Your task to perform on an android device: change keyboard looks Image 0: 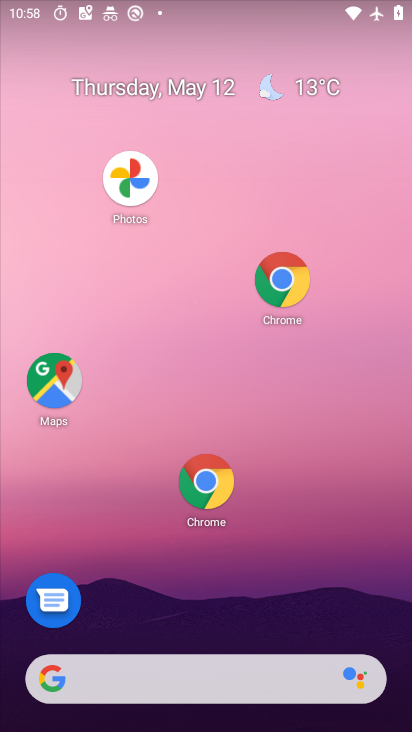
Step 0: drag from (273, 618) to (80, 44)
Your task to perform on an android device: change keyboard looks Image 1: 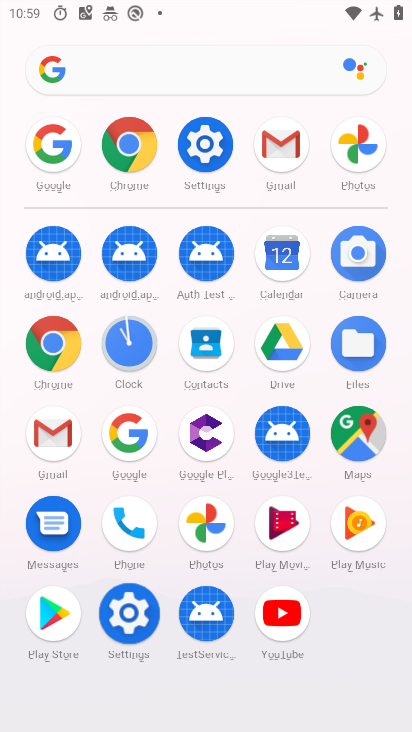
Step 1: click (149, 610)
Your task to perform on an android device: change keyboard looks Image 2: 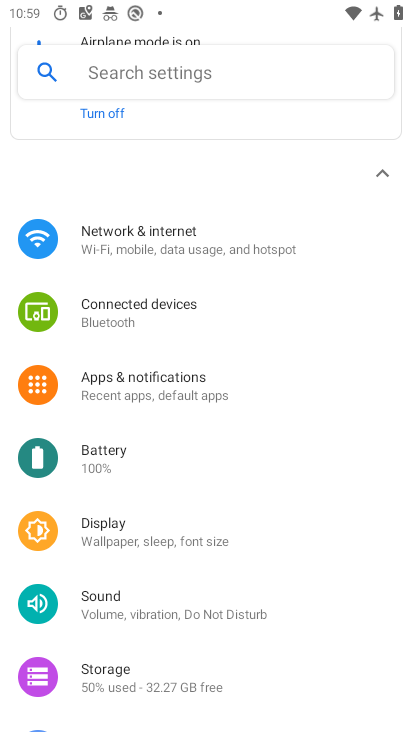
Step 2: drag from (119, 618) to (82, 259)
Your task to perform on an android device: change keyboard looks Image 3: 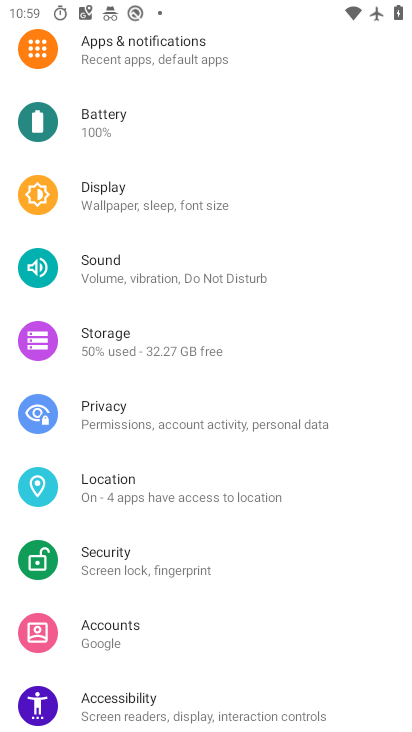
Step 3: drag from (107, 430) to (58, 189)
Your task to perform on an android device: change keyboard looks Image 4: 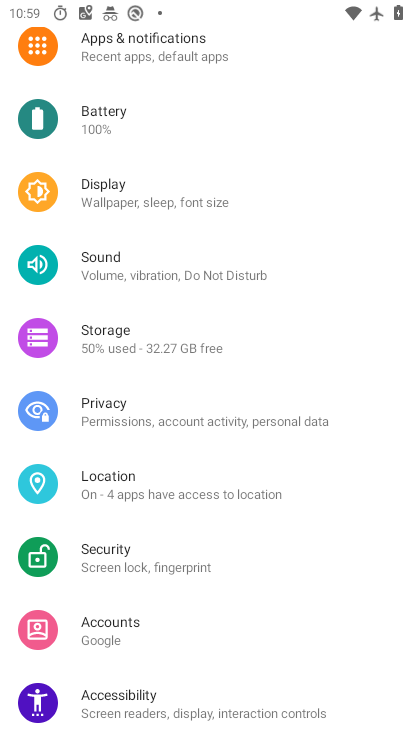
Step 4: drag from (167, 599) to (167, 271)
Your task to perform on an android device: change keyboard looks Image 5: 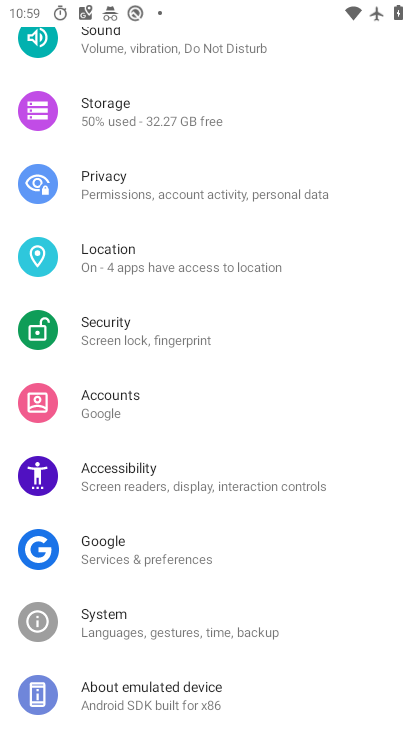
Step 5: click (125, 627)
Your task to perform on an android device: change keyboard looks Image 6: 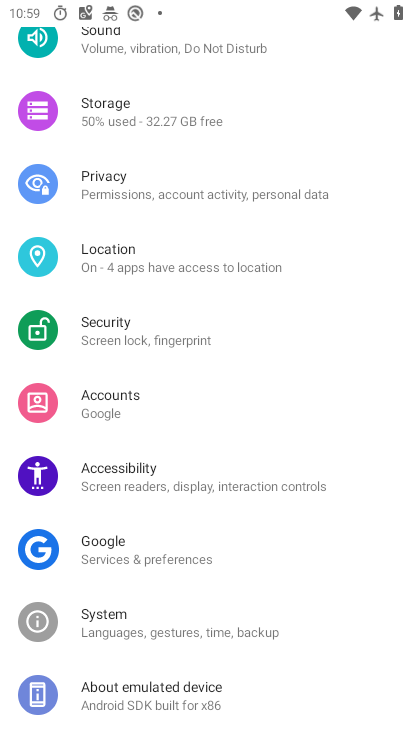
Step 6: click (125, 627)
Your task to perform on an android device: change keyboard looks Image 7: 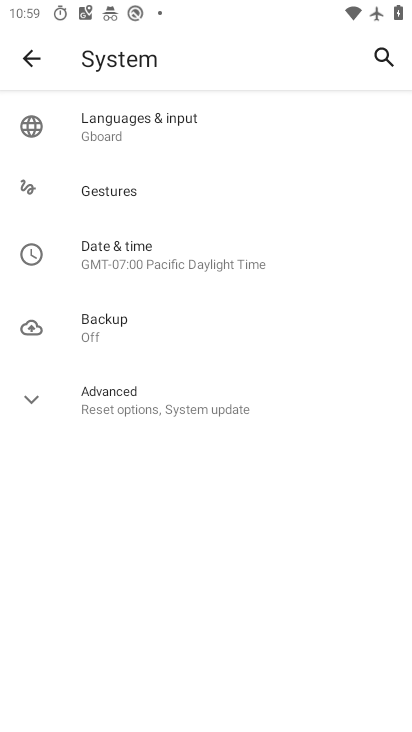
Step 7: click (119, 123)
Your task to perform on an android device: change keyboard looks Image 8: 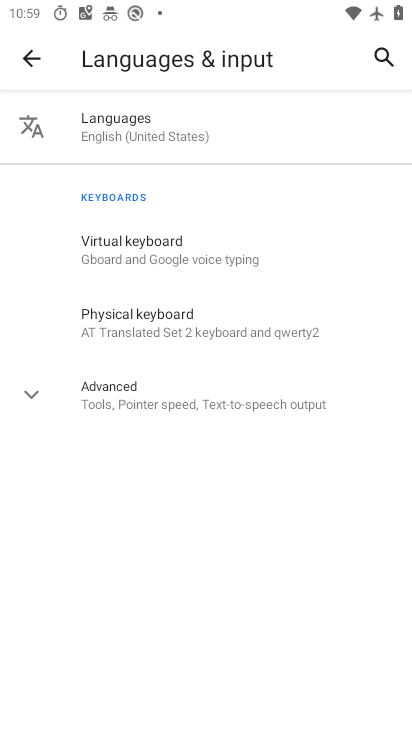
Step 8: click (119, 267)
Your task to perform on an android device: change keyboard looks Image 9: 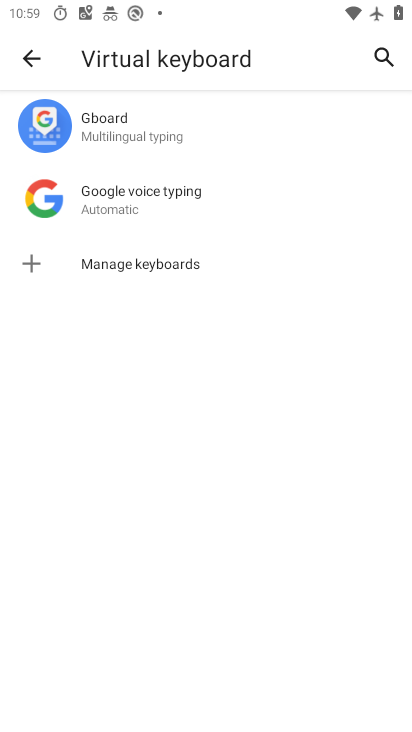
Step 9: click (111, 134)
Your task to perform on an android device: change keyboard looks Image 10: 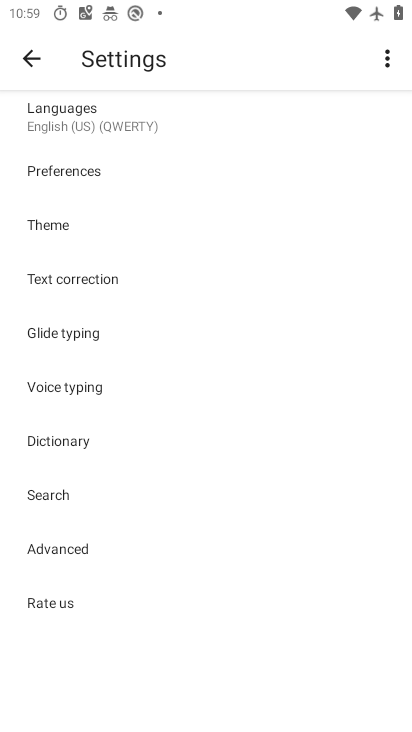
Step 10: click (51, 228)
Your task to perform on an android device: change keyboard looks Image 11: 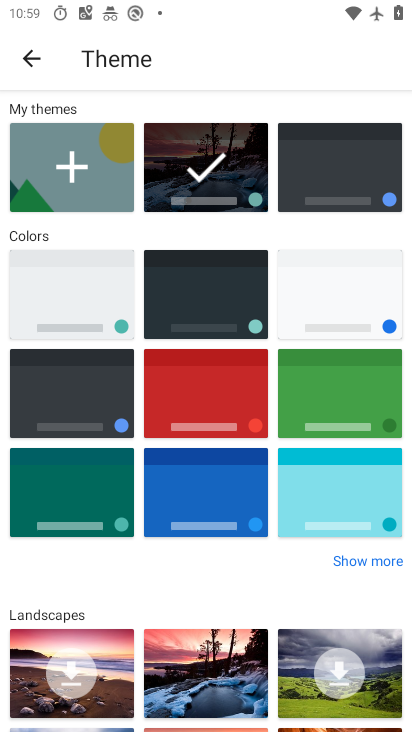
Step 11: click (196, 378)
Your task to perform on an android device: change keyboard looks Image 12: 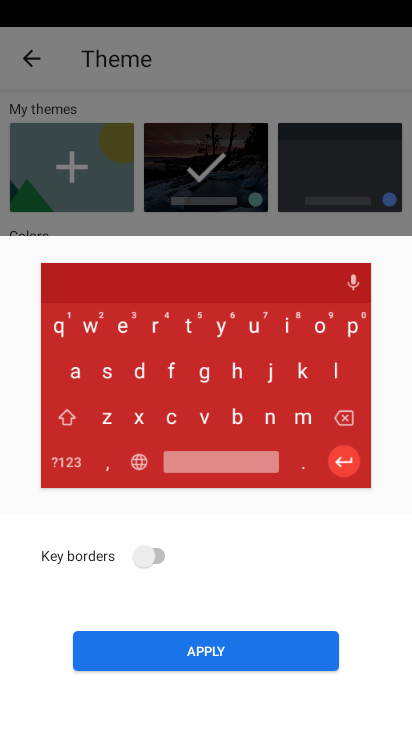
Step 12: click (196, 378)
Your task to perform on an android device: change keyboard looks Image 13: 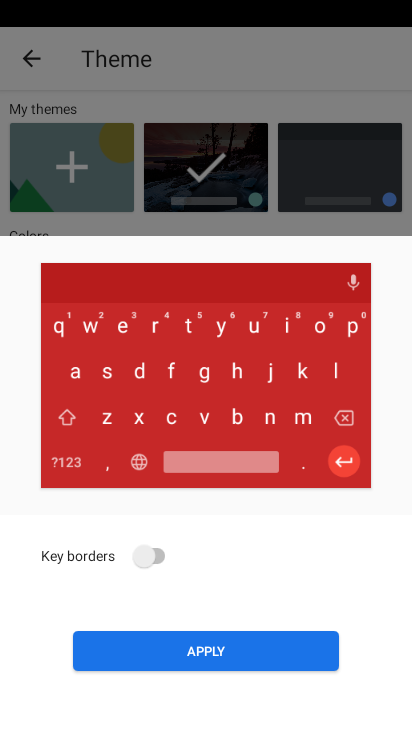
Step 13: click (196, 378)
Your task to perform on an android device: change keyboard looks Image 14: 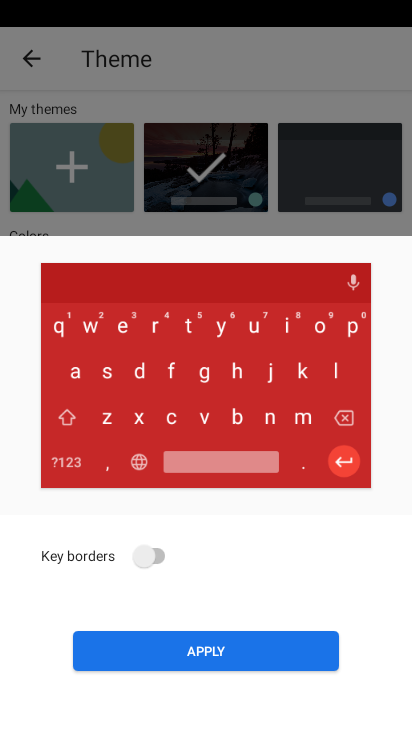
Step 14: click (221, 646)
Your task to perform on an android device: change keyboard looks Image 15: 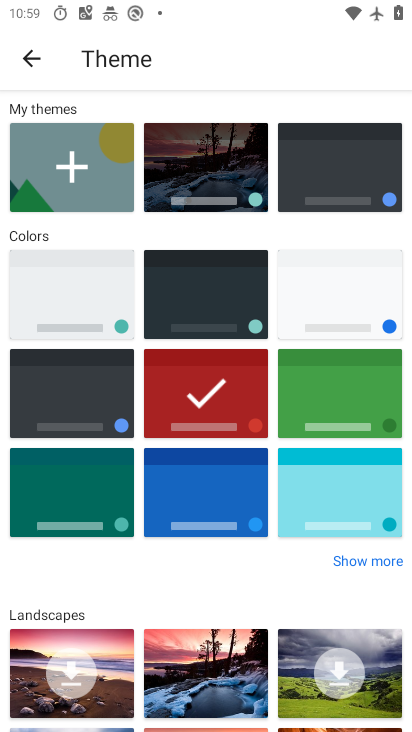
Step 15: task complete